Your task to perform on an android device: turn notification dots off Image 0: 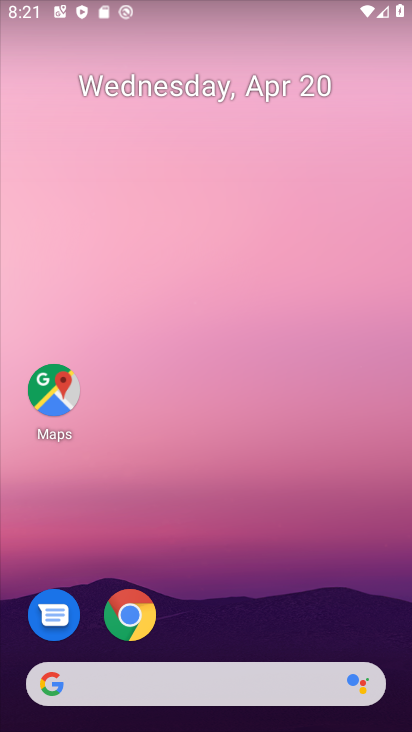
Step 0: drag from (239, 605) to (328, 41)
Your task to perform on an android device: turn notification dots off Image 1: 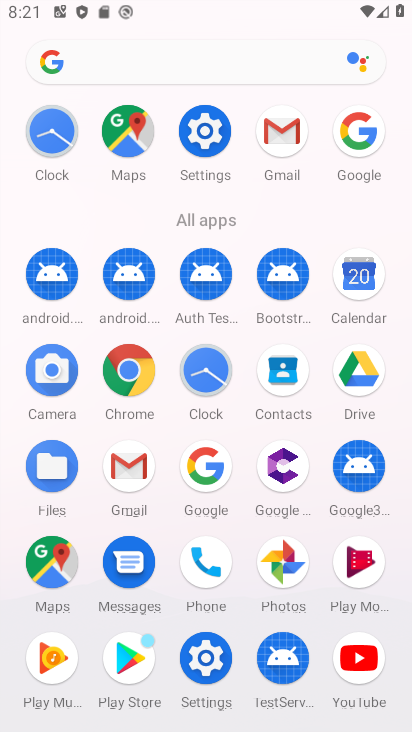
Step 1: click (204, 131)
Your task to perform on an android device: turn notification dots off Image 2: 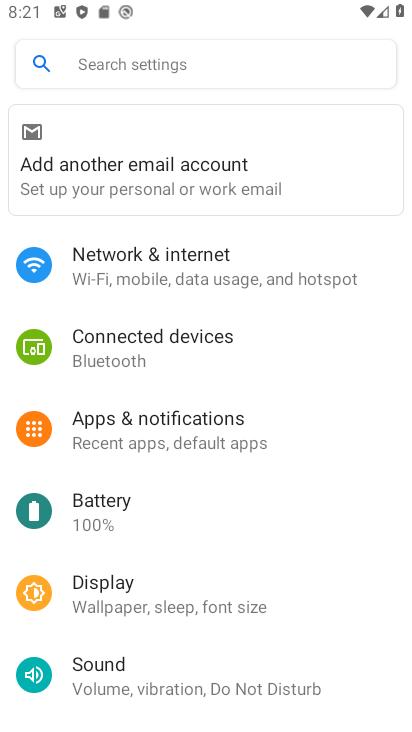
Step 2: click (191, 430)
Your task to perform on an android device: turn notification dots off Image 3: 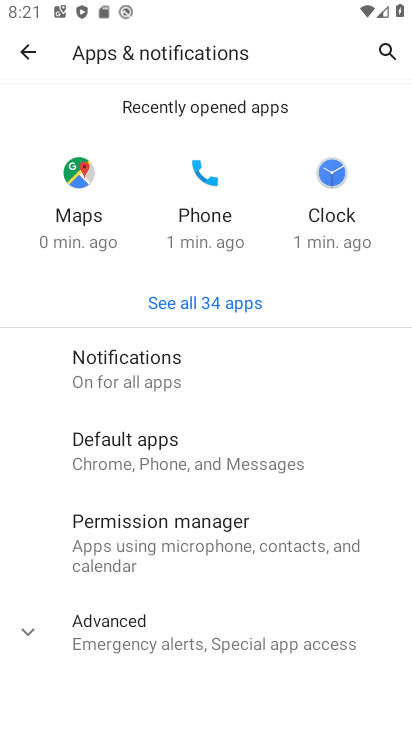
Step 3: click (149, 358)
Your task to perform on an android device: turn notification dots off Image 4: 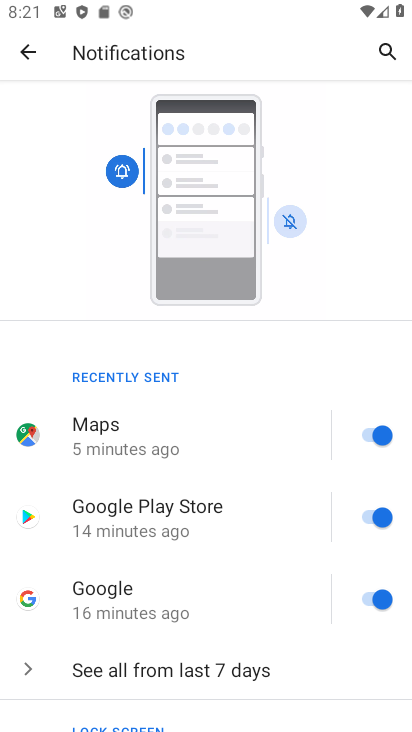
Step 4: drag from (196, 547) to (259, 387)
Your task to perform on an android device: turn notification dots off Image 5: 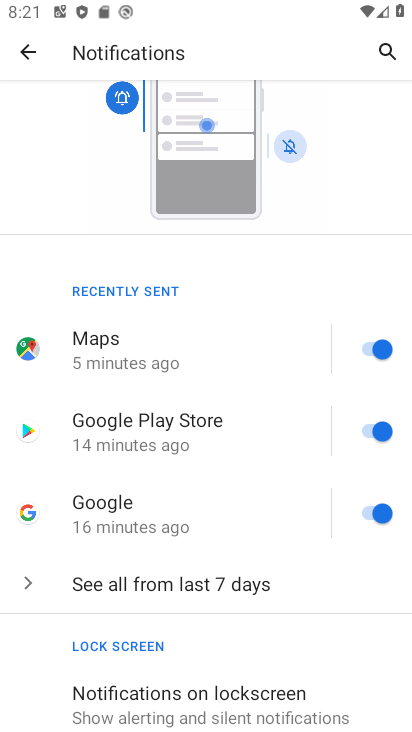
Step 5: drag from (189, 539) to (257, 412)
Your task to perform on an android device: turn notification dots off Image 6: 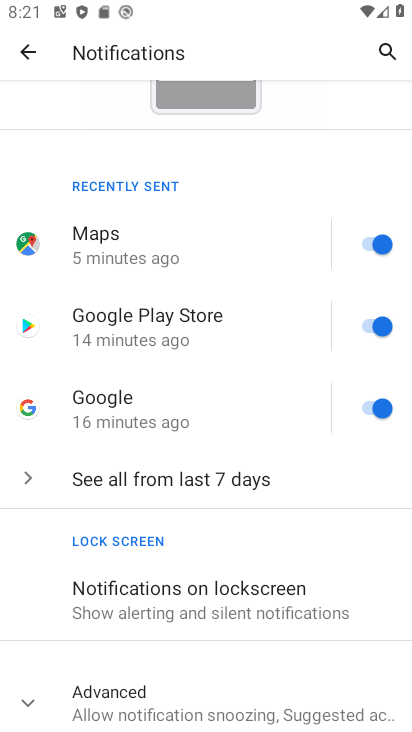
Step 6: drag from (211, 551) to (275, 391)
Your task to perform on an android device: turn notification dots off Image 7: 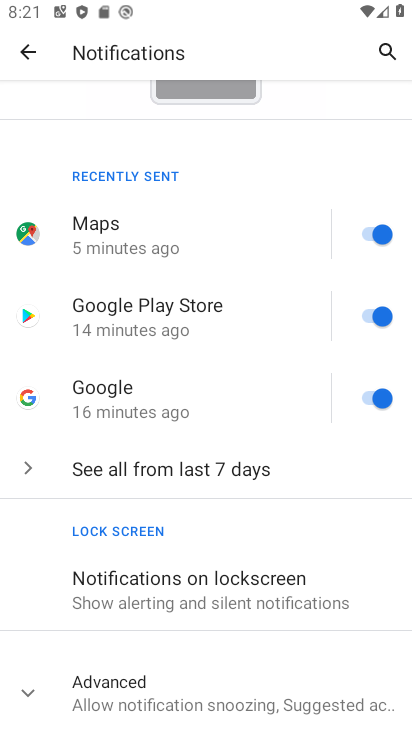
Step 7: click (197, 708)
Your task to perform on an android device: turn notification dots off Image 8: 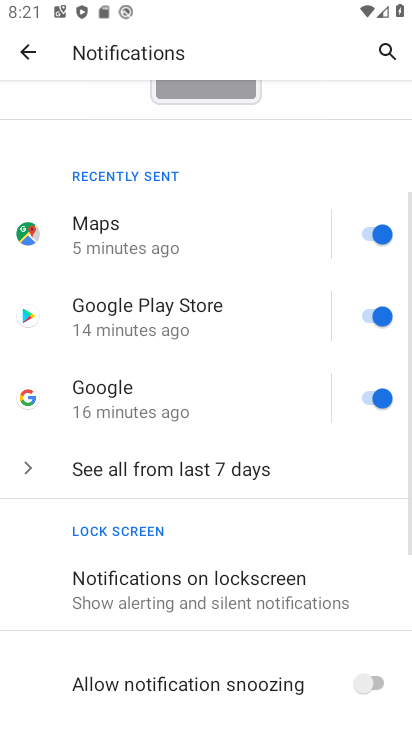
Step 8: drag from (207, 659) to (236, 493)
Your task to perform on an android device: turn notification dots off Image 9: 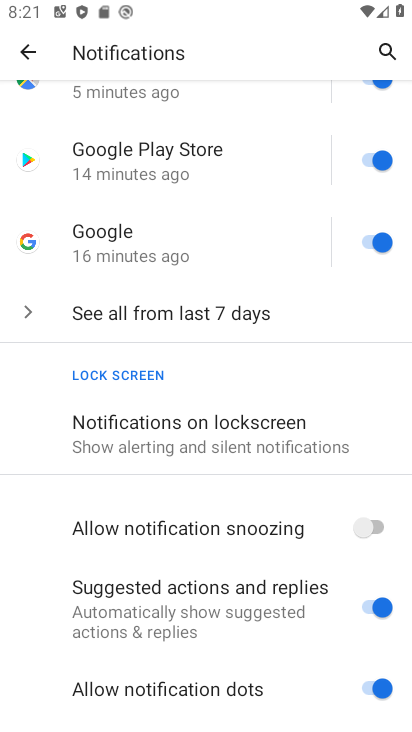
Step 9: drag from (233, 645) to (257, 500)
Your task to perform on an android device: turn notification dots off Image 10: 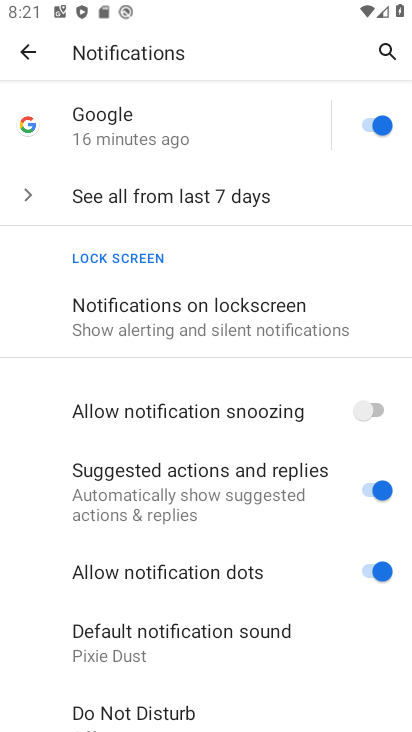
Step 10: click (382, 571)
Your task to perform on an android device: turn notification dots off Image 11: 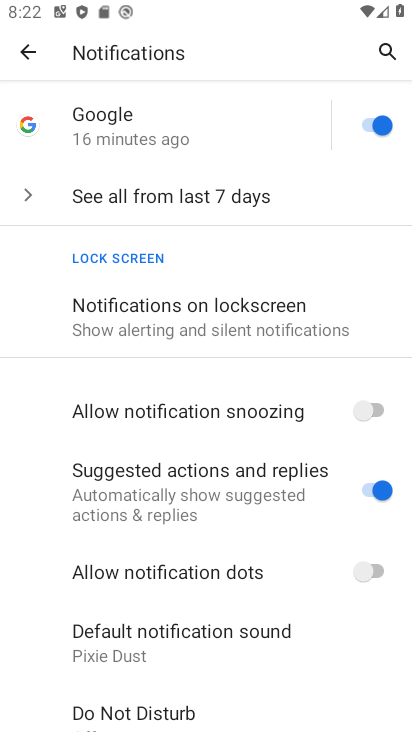
Step 11: task complete